Your task to perform on an android device: turn off picture-in-picture Image 0: 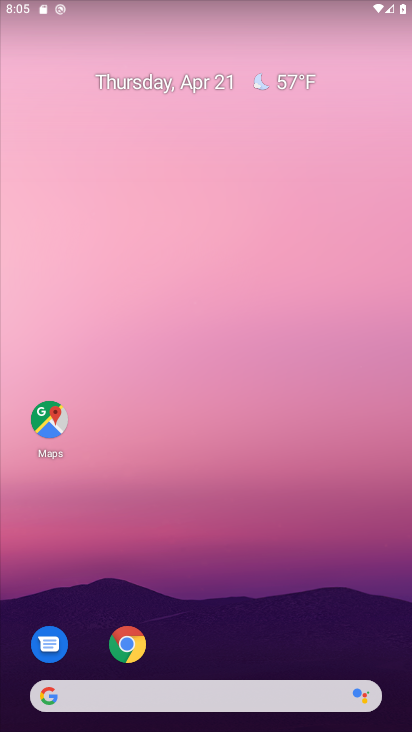
Step 0: drag from (237, 574) to (229, 49)
Your task to perform on an android device: turn off picture-in-picture Image 1: 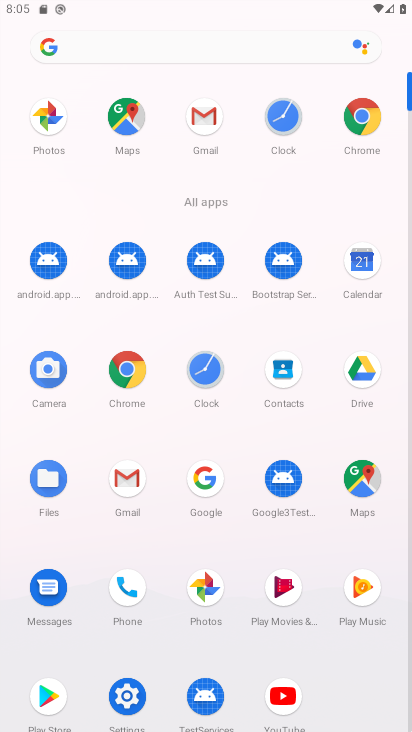
Step 1: click (129, 698)
Your task to perform on an android device: turn off picture-in-picture Image 2: 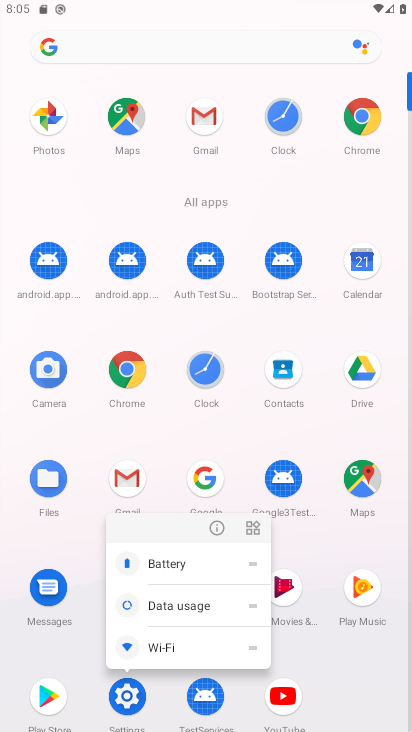
Step 2: click (130, 696)
Your task to perform on an android device: turn off picture-in-picture Image 3: 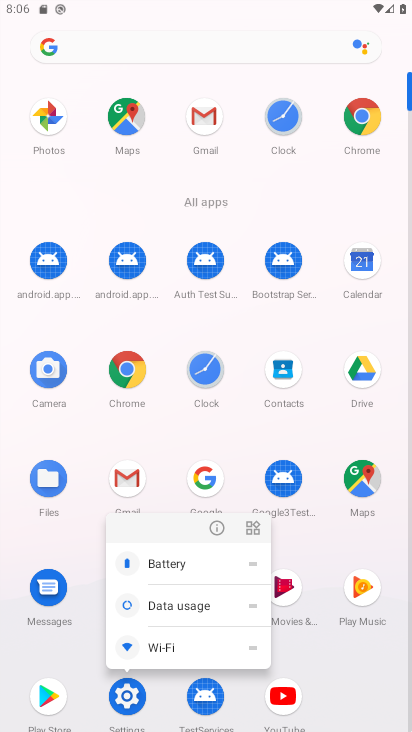
Step 3: click (126, 704)
Your task to perform on an android device: turn off picture-in-picture Image 4: 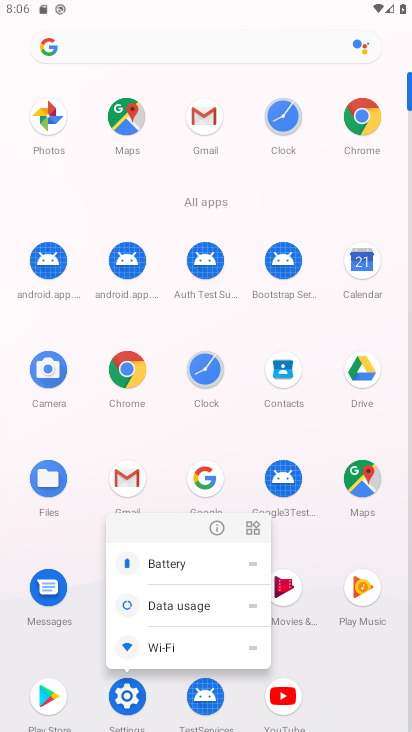
Step 4: click (127, 692)
Your task to perform on an android device: turn off picture-in-picture Image 5: 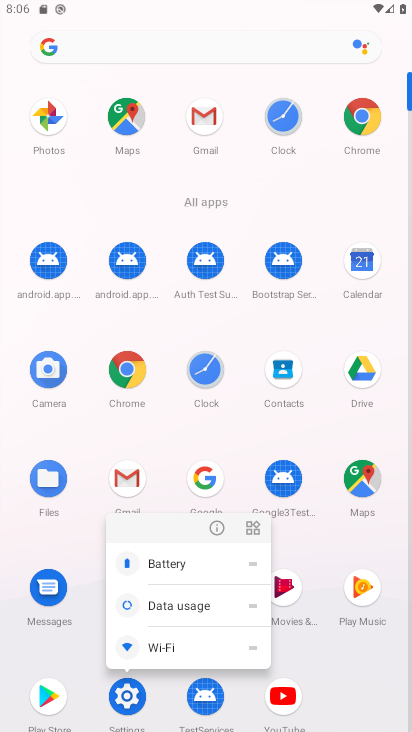
Step 5: click (126, 693)
Your task to perform on an android device: turn off picture-in-picture Image 6: 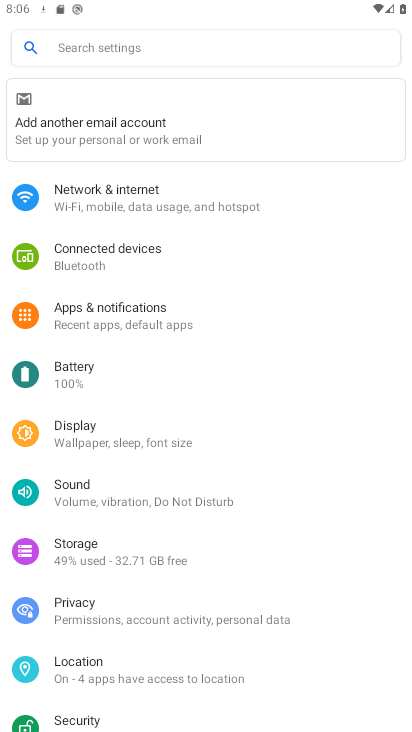
Step 6: click (119, 305)
Your task to perform on an android device: turn off picture-in-picture Image 7: 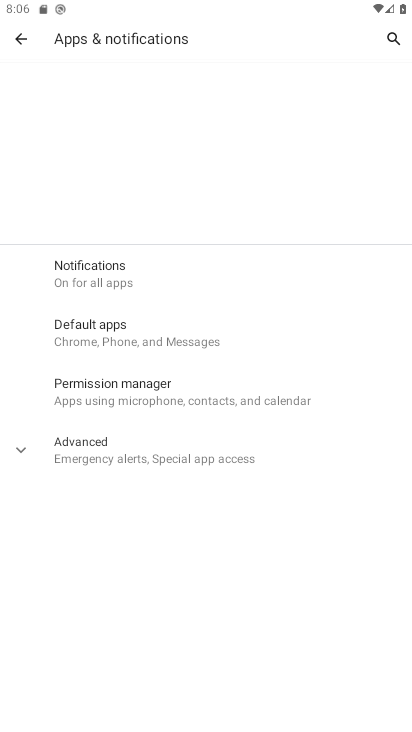
Step 7: click (150, 433)
Your task to perform on an android device: turn off picture-in-picture Image 8: 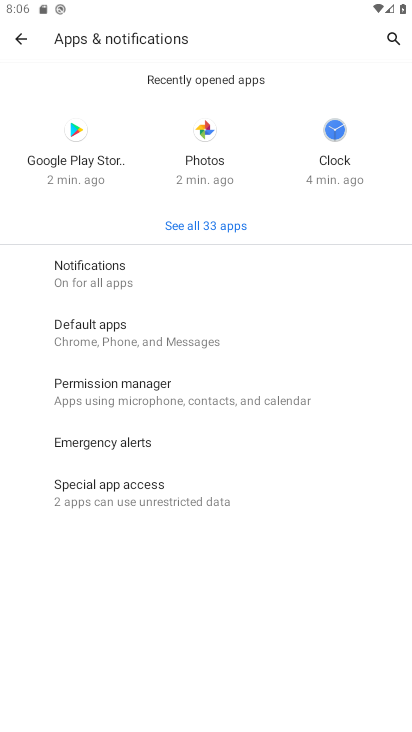
Step 8: click (158, 490)
Your task to perform on an android device: turn off picture-in-picture Image 9: 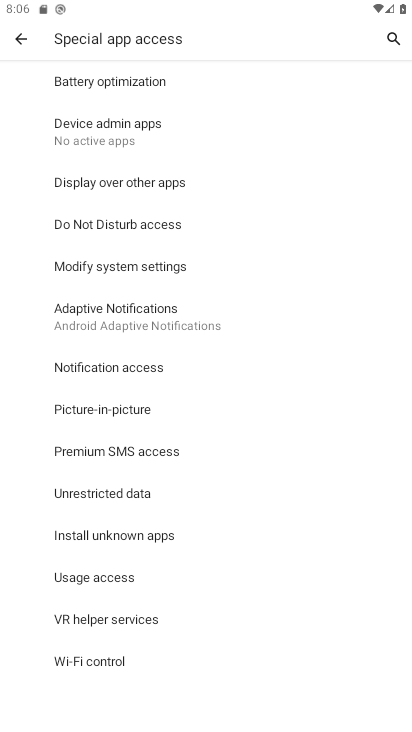
Step 9: click (115, 416)
Your task to perform on an android device: turn off picture-in-picture Image 10: 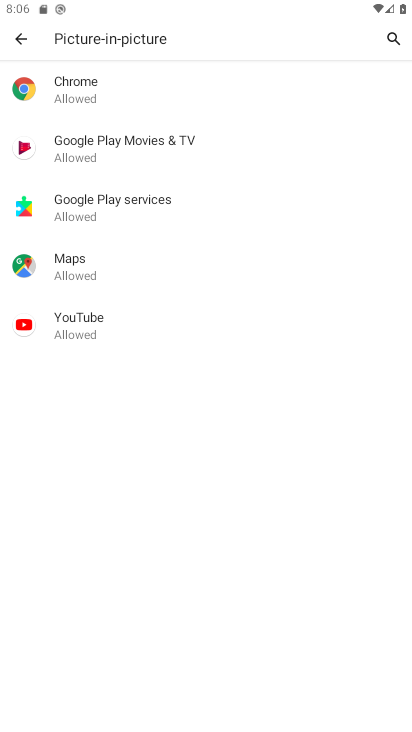
Step 10: click (107, 100)
Your task to perform on an android device: turn off picture-in-picture Image 11: 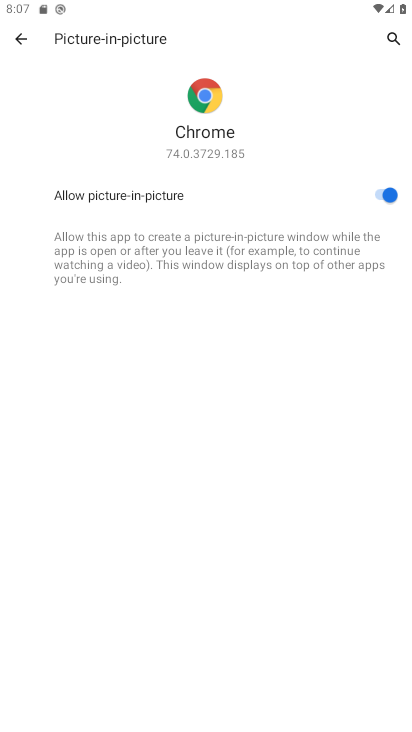
Step 11: click (381, 191)
Your task to perform on an android device: turn off picture-in-picture Image 12: 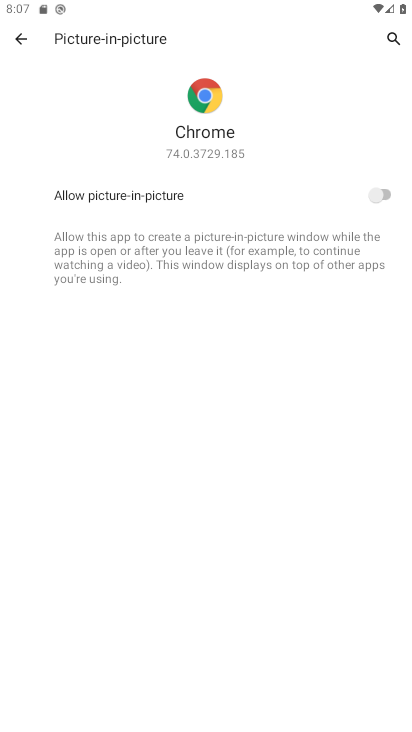
Step 12: task complete